Your task to perform on an android device: turn off airplane mode Image 0: 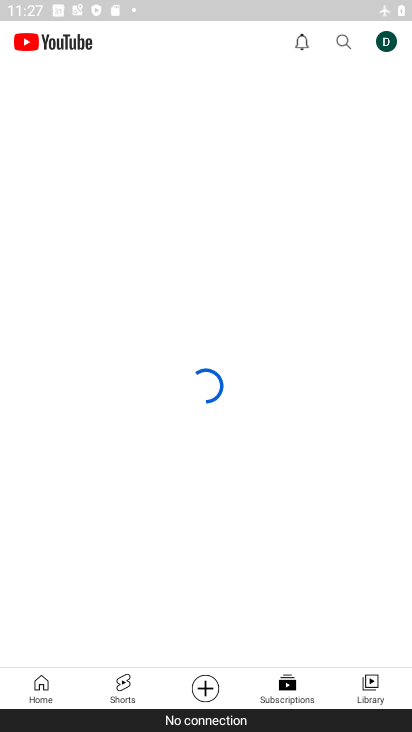
Step 0: press home button
Your task to perform on an android device: turn off airplane mode Image 1: 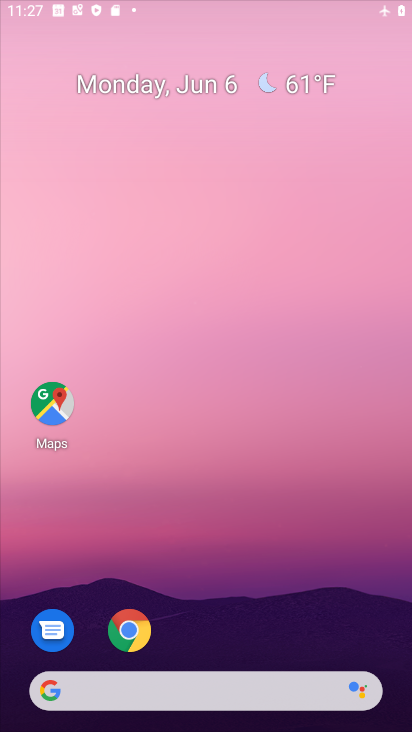
Step 1: drag from (316, 430) to (331, 0)
Your task to perform on an android device: turn off airplane mode Image 2: 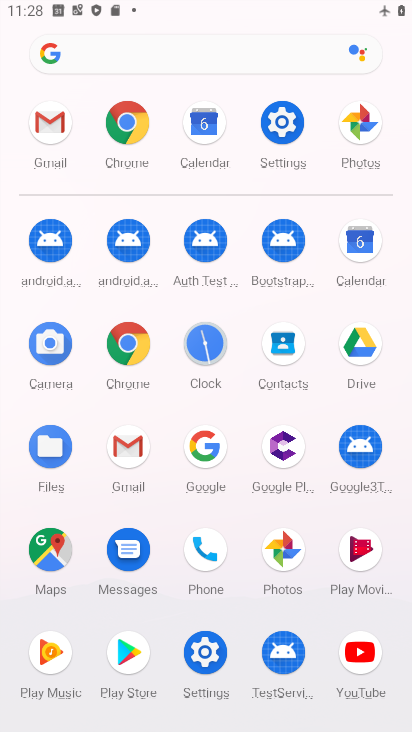
Step 2: click (275, 139)
Your task to perform on an android device: turn off airplane mode Image 3: 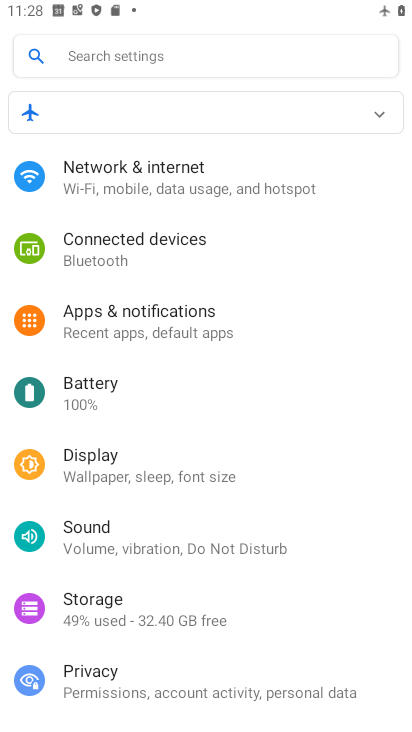
Step 3: click (88, 120)
Your task to perform on an android device: turn off airplane mode Image 4: 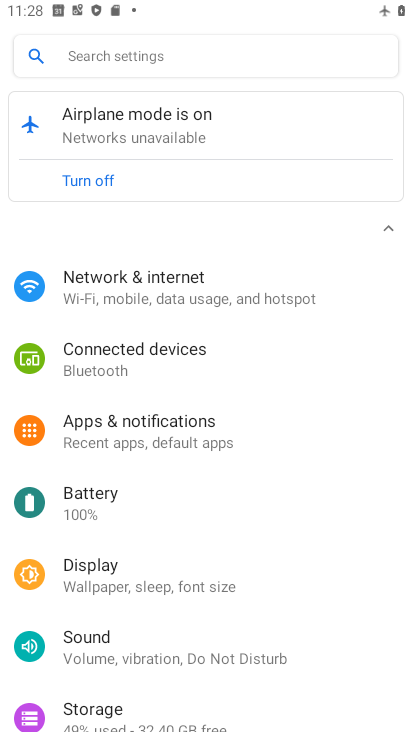
Step 4: click (113, 187)
Your task to perform on an android device: turn off airplane mode Image 5: 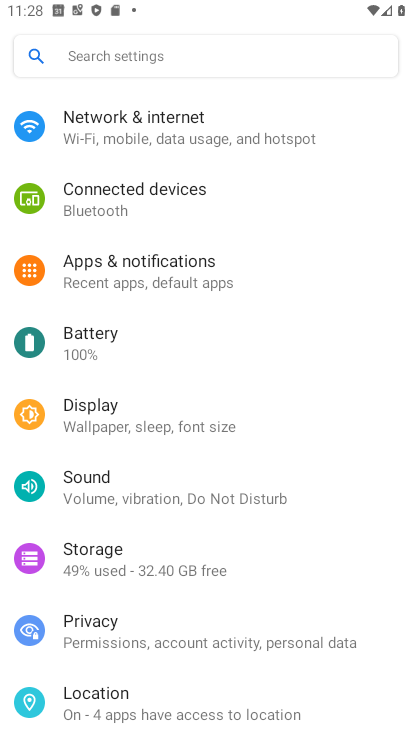
Step 5: task complete